Your task to perform on an android device: Open accessibility settings Image 0: 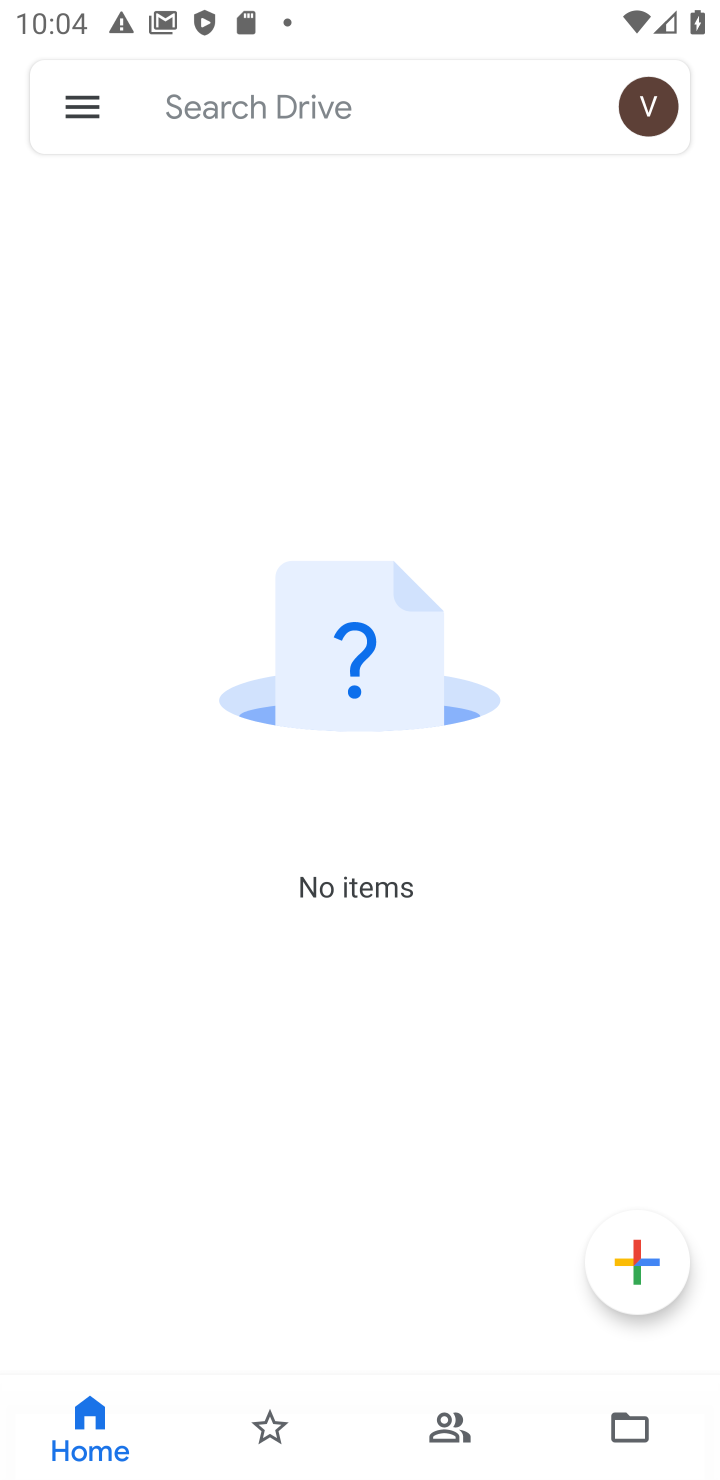
Step 0: press home button
Your task to perform on an android device: Open accessibility settings Image 1: 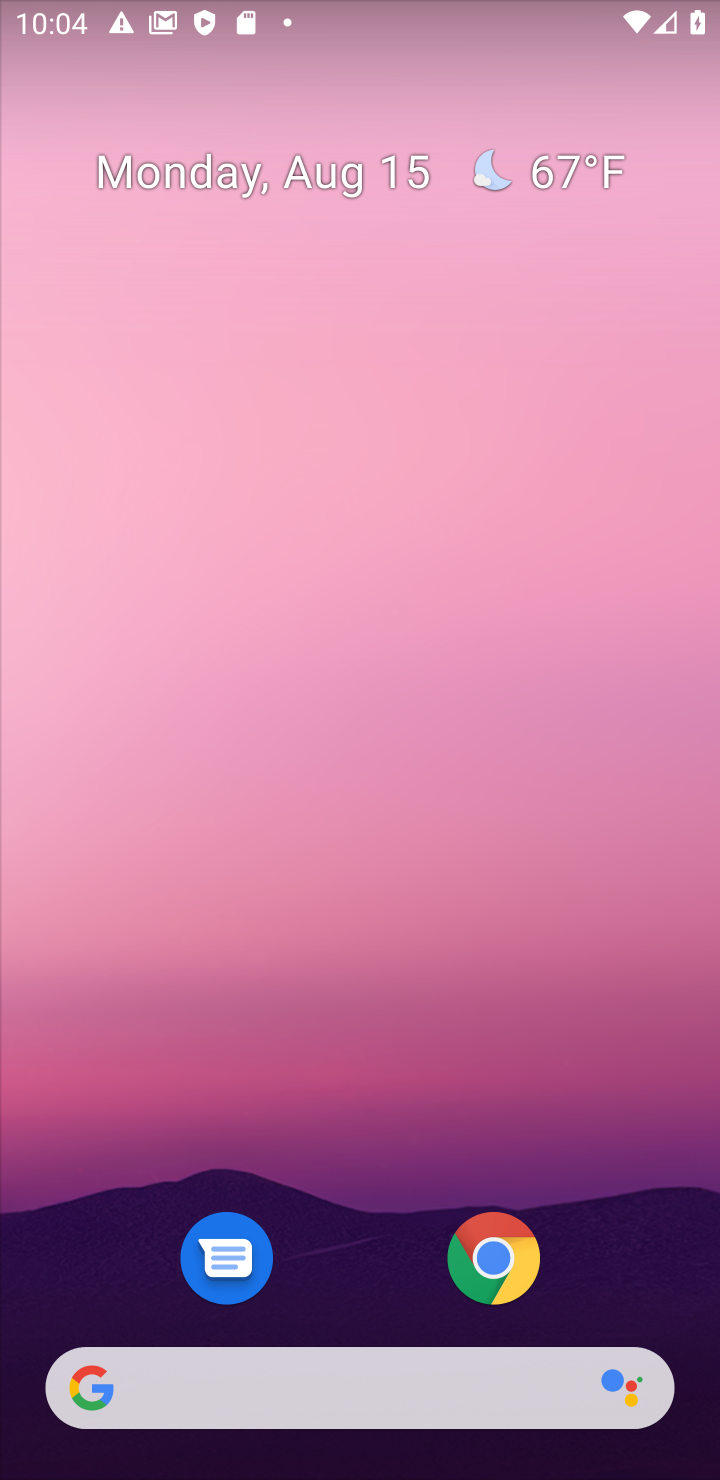
Step 1: drag from (373, 1316) to (159, 13)
Your task to perform on an android device: Open accessibility settings Image 2: 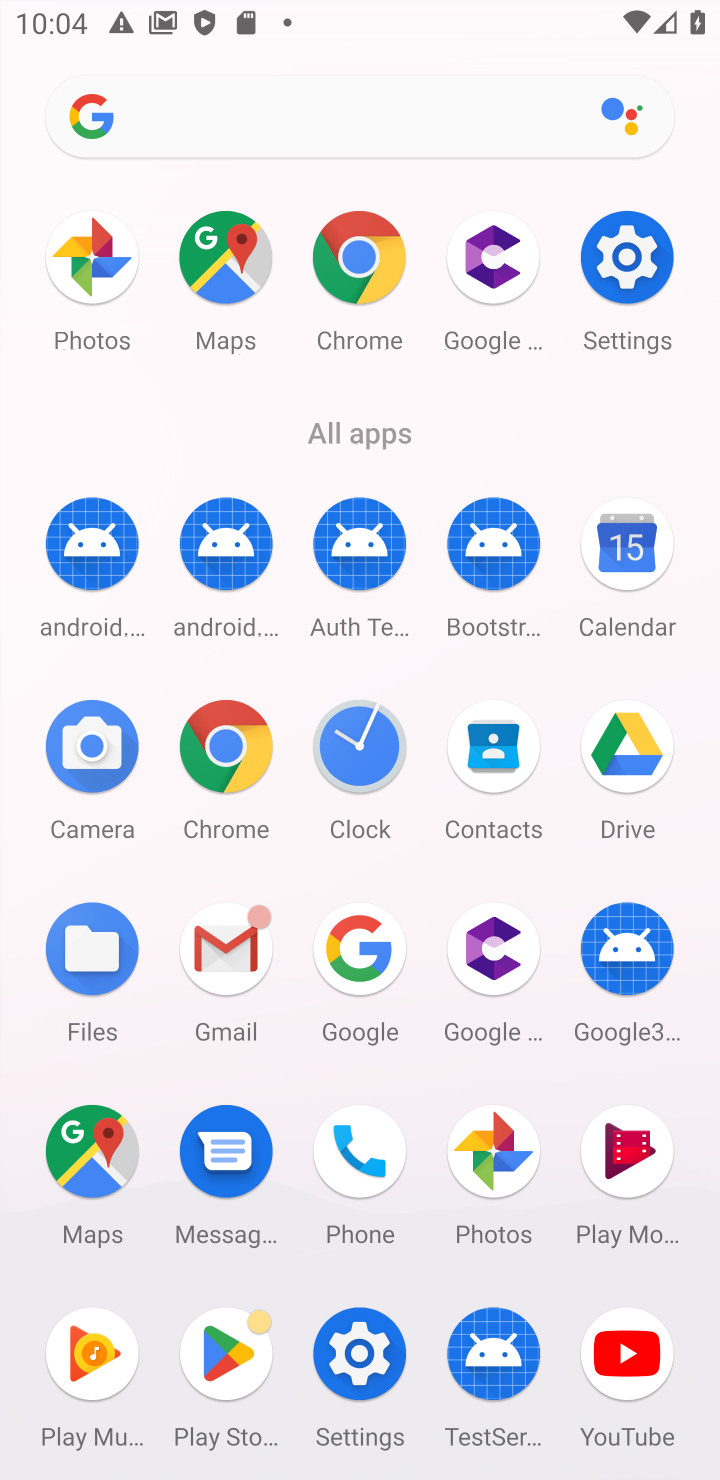
Step 2: click (356, 1337)
Your task to perform on an android device: Open accessibility settings Image 3: 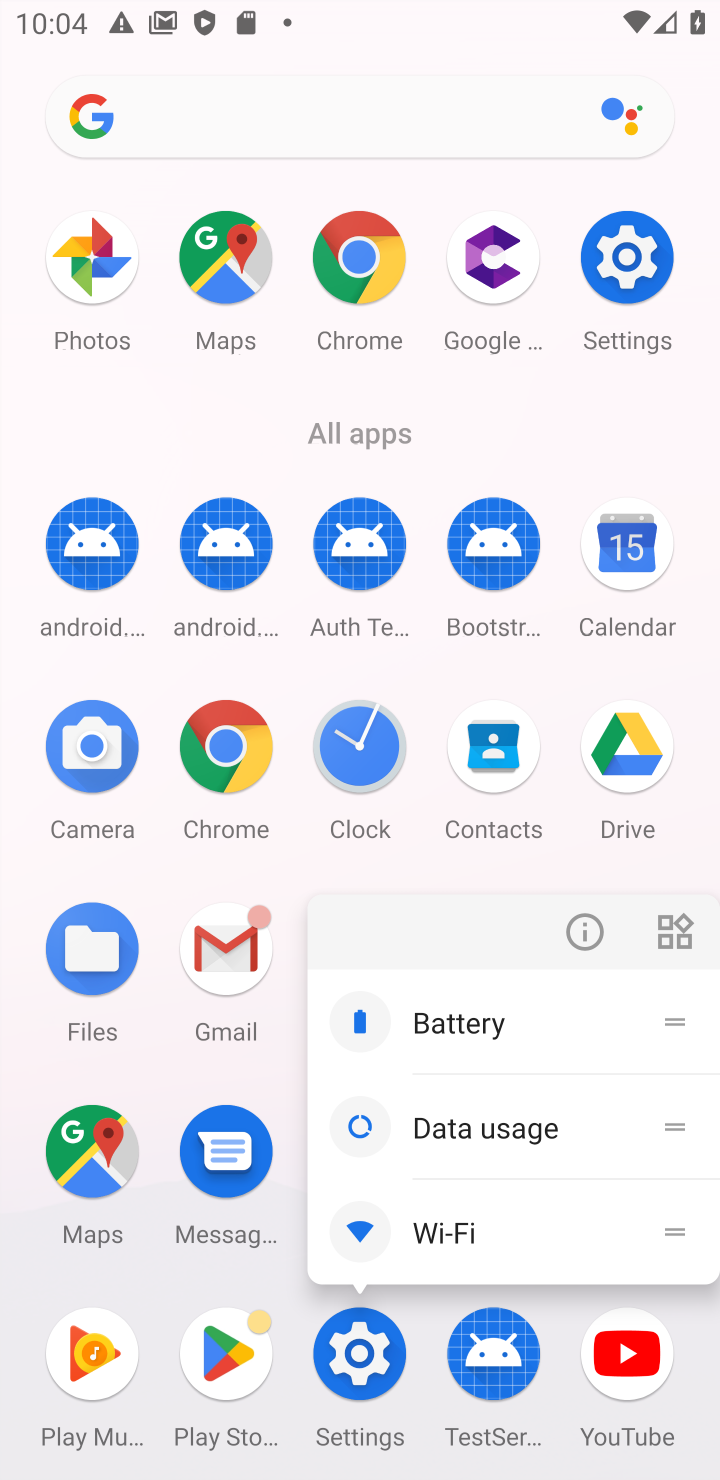
Step 3: click (363, 1394)
Your task to perform on an android device: Open accessibility settings Image 4: 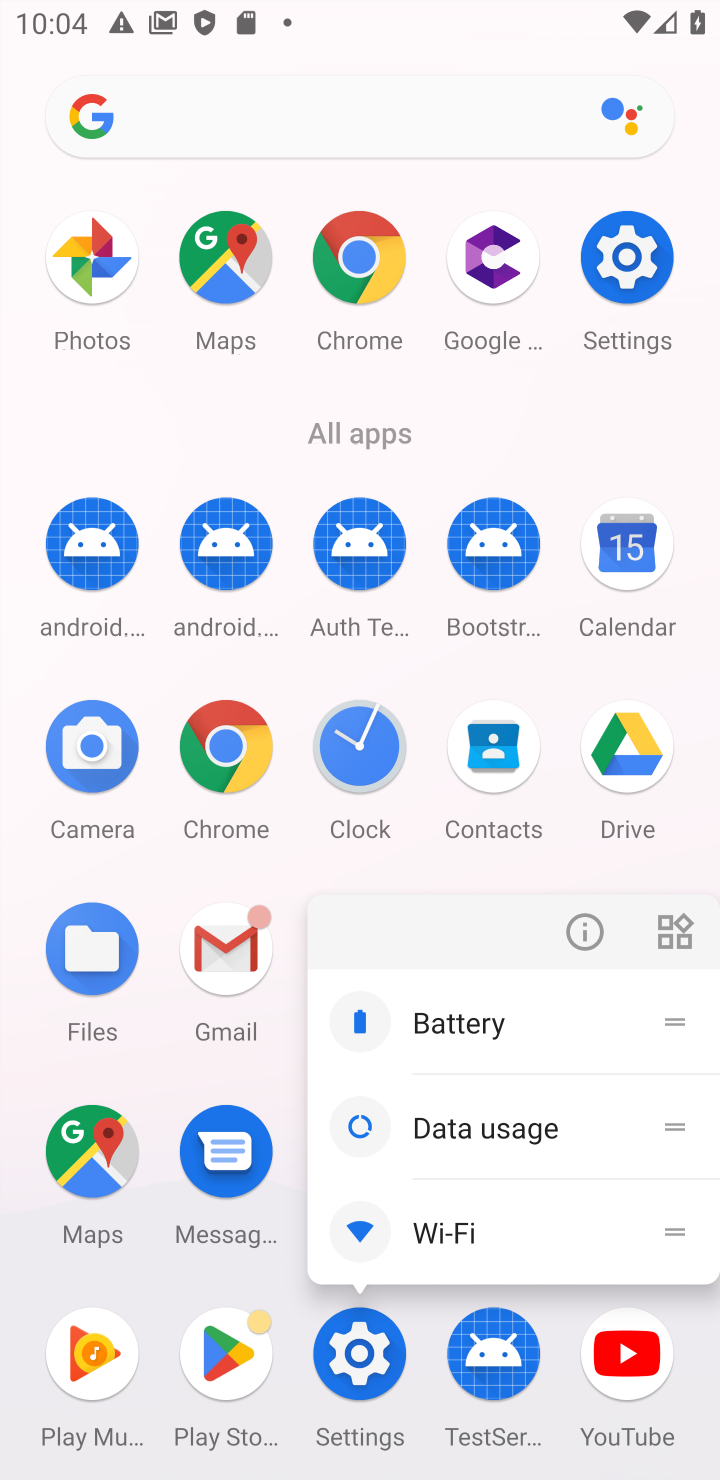
Step 4: click (367, 1376)
Your task to perform on an android device: Open accessibility settings Image 5: 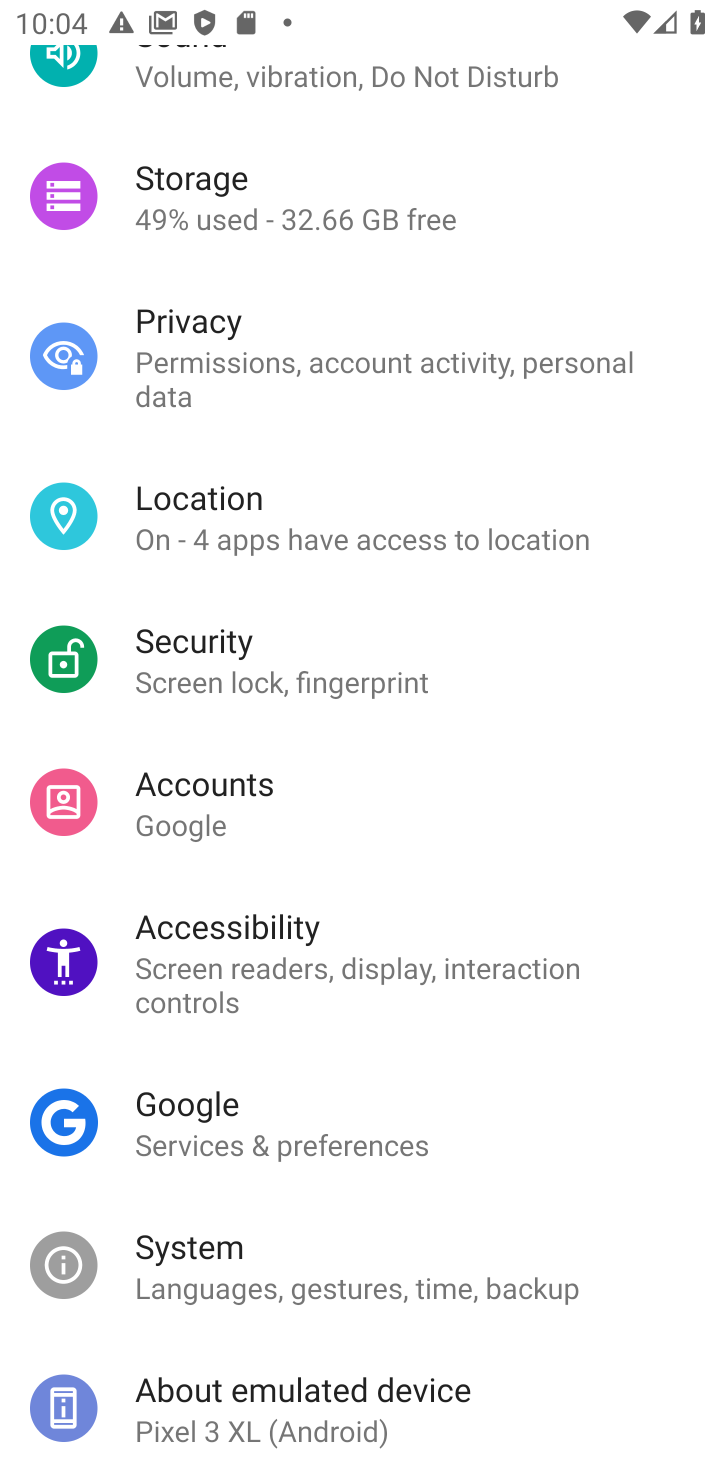
Step 5: click (367, 1376)
Your task to perform on an android device: Open accessibility settings Image 6: 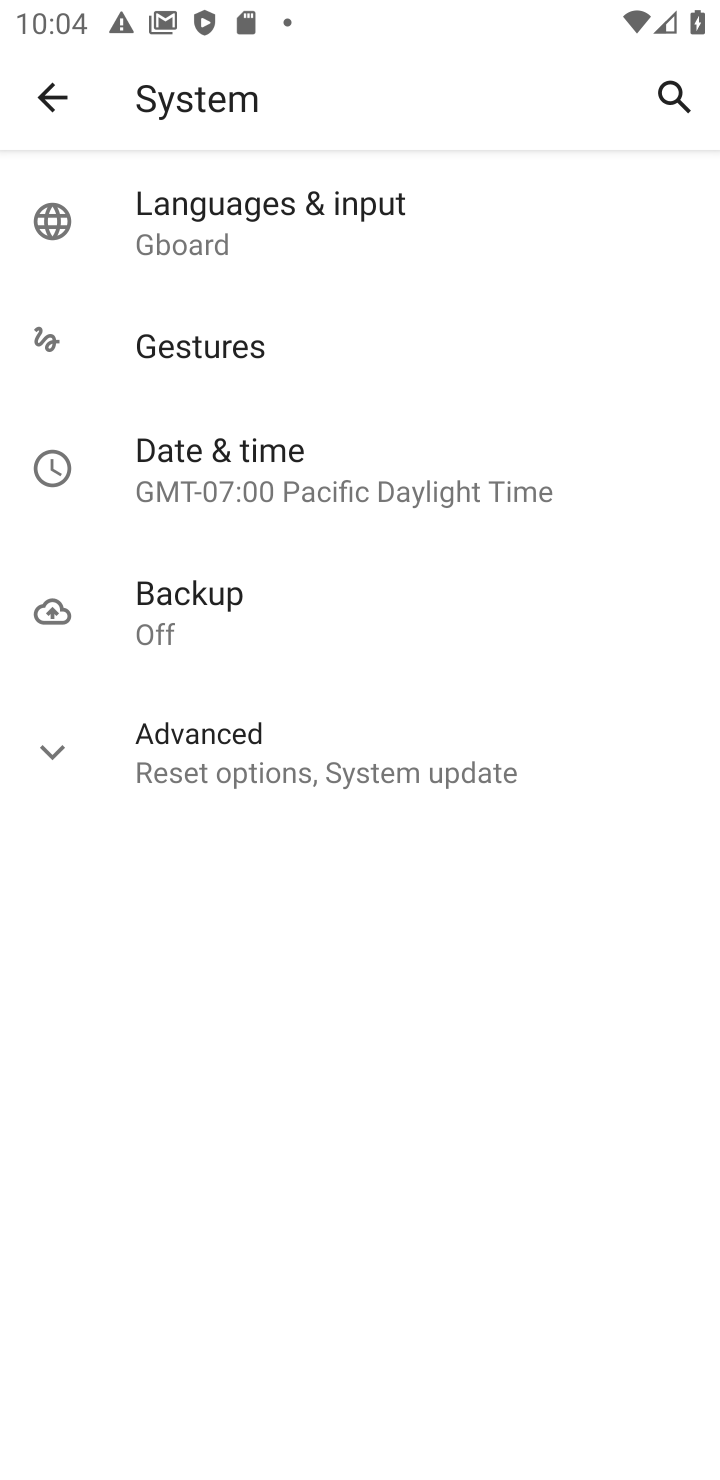
Step 6: click (302, 1155)
Your task to perform on an android device: Open accessibility settings Image 7: 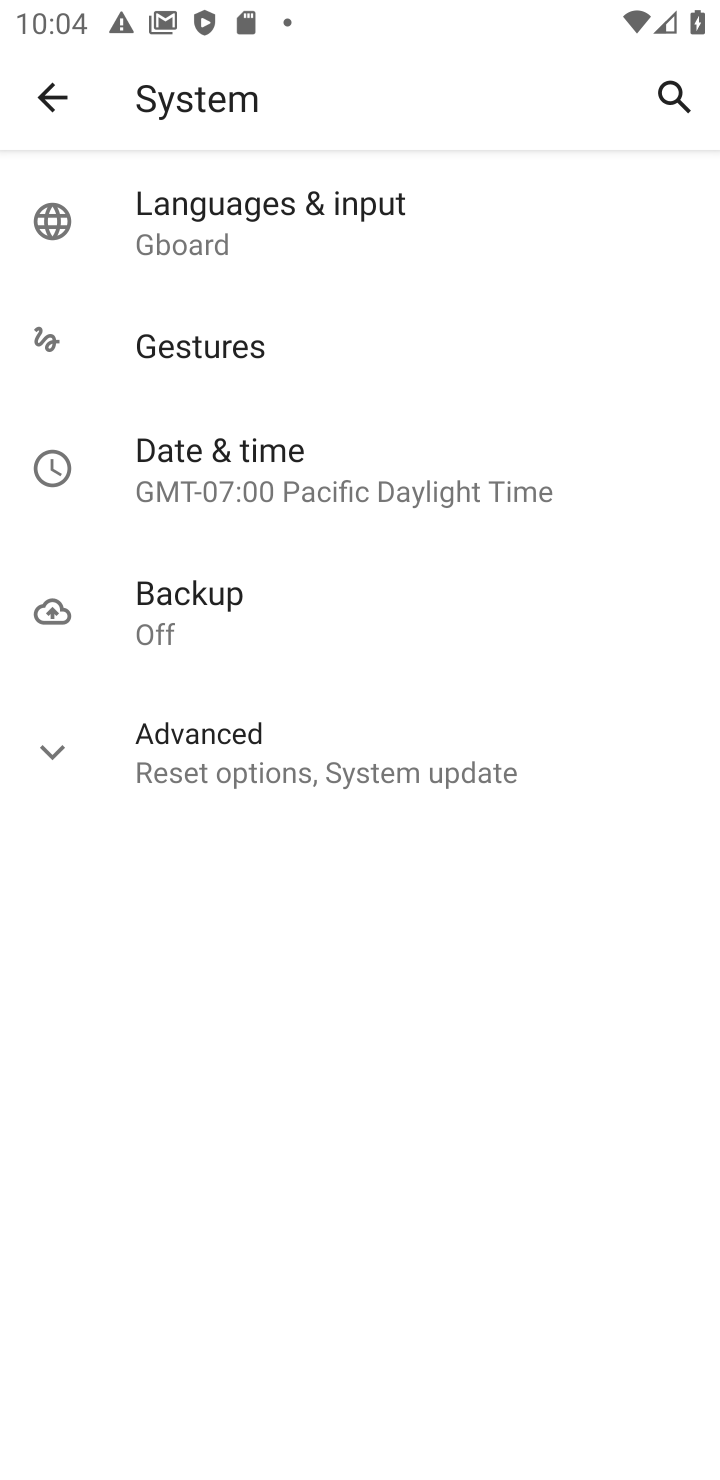
Step 7: click (30, 79)
Your task to perform on an android device: Open accessibility settings Image 8: 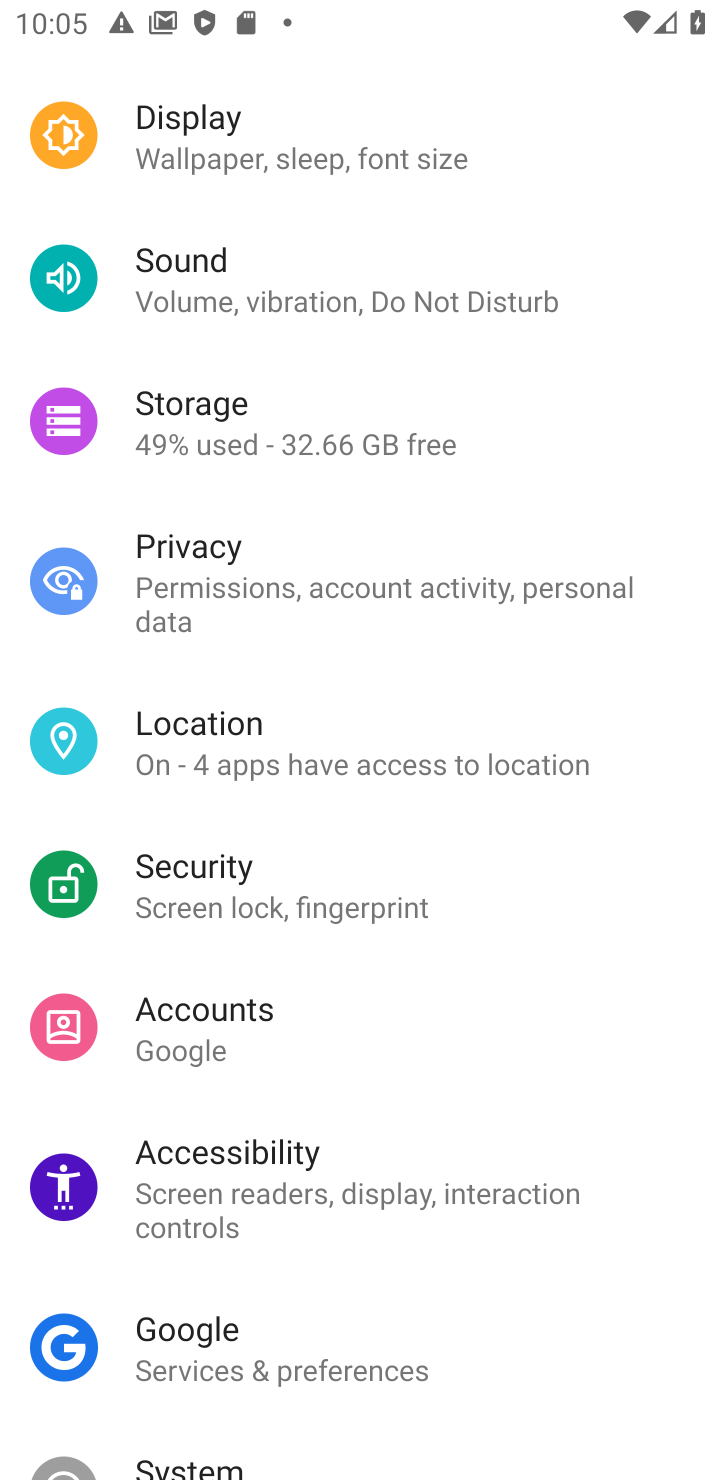
Step 8: click (283, 1184)
Your task to perform on an android device: Open accessibility settings Image 9: 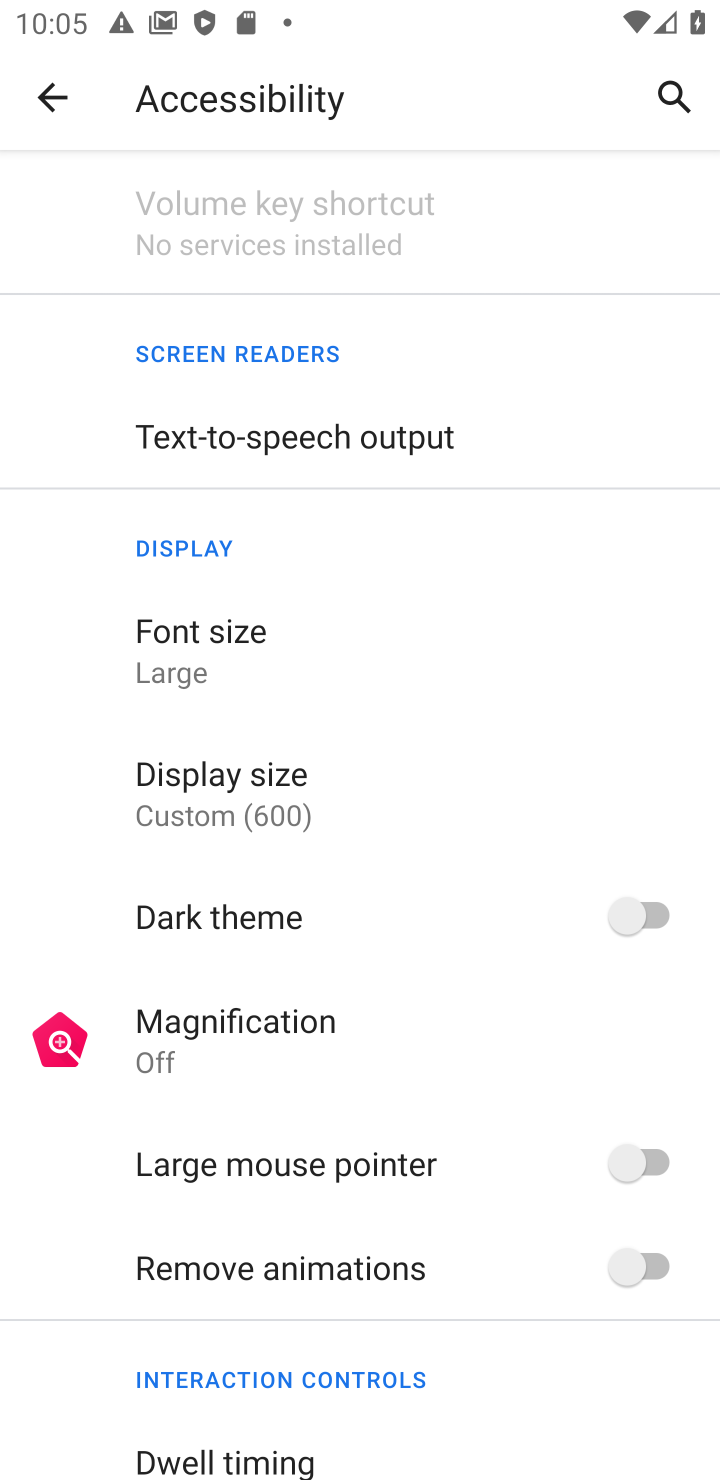
Step 9: task complete